Your task to perform on an android device: empty trash in the gmail app Image 0: 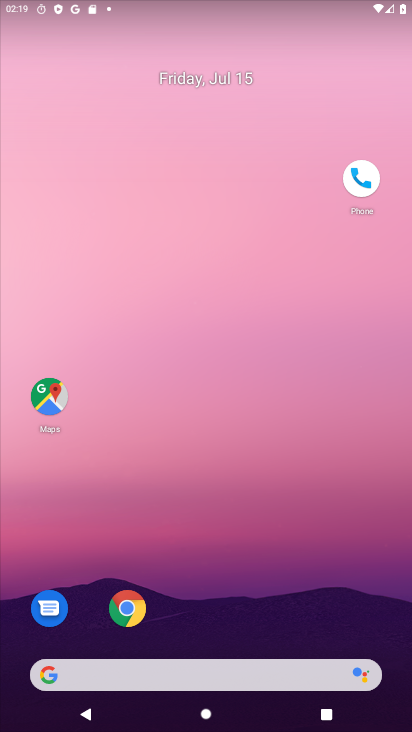
Step 0: drag from (209, 620) to (241, 286)
Your task to perform on an android device: empty trash in the gmail app Image 1: 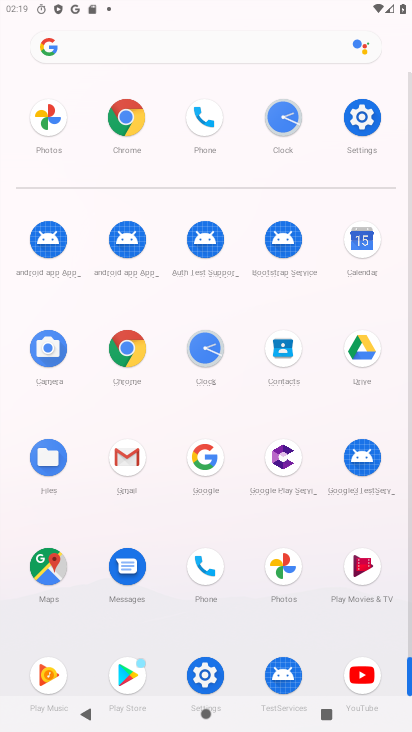
Step 1: click (127, 444)
Your task to perform on an android device: empty trash in the gmail app Image 2: 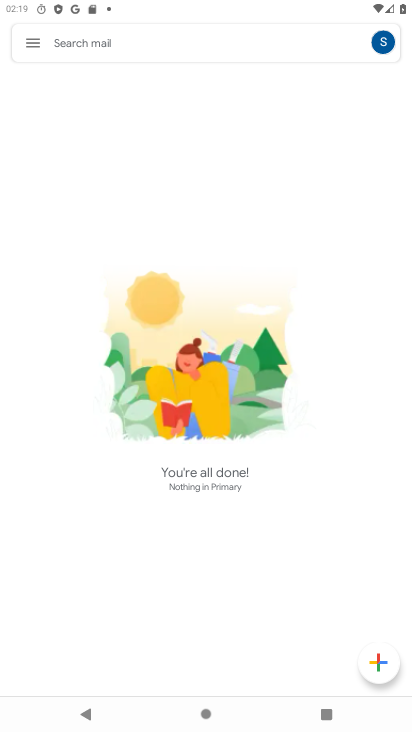
Step 2: drag from (303, 497) to (303, 142)
Your task to perform on an android device: empty trash in the gmail app Image 3: 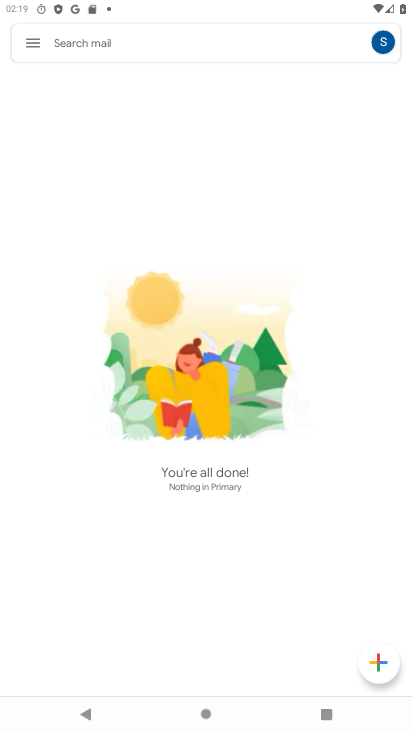
Step 3: click (43, 39)
Your task to perform on an android device: empty trash in the gmail app Image 4: 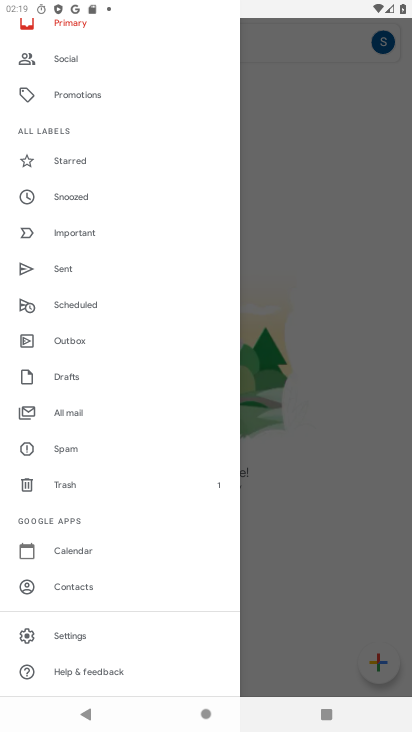
Step 4: click (69, 478)
Your task to perform on an android device: empty trash in the gmail app Image 5: 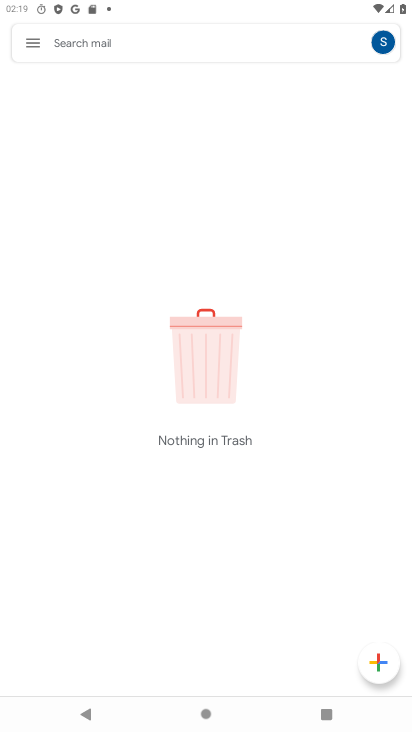
Step 5: task complete